Your task to perform on an android device: Go to battery settings Image 0: 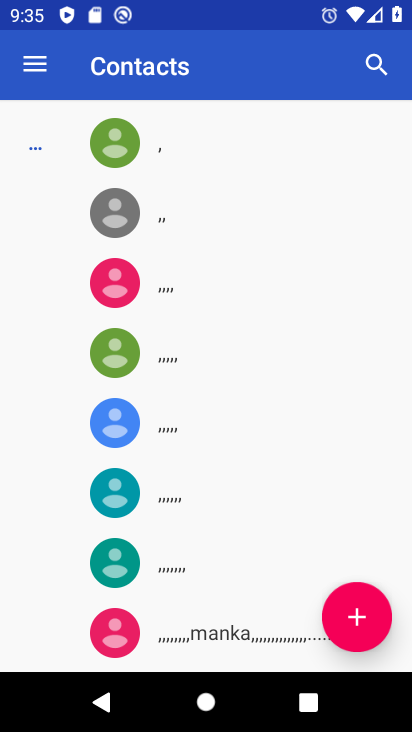
Step 0: press home button
Your task to perform on an android device: Go to battery settings Image 1: 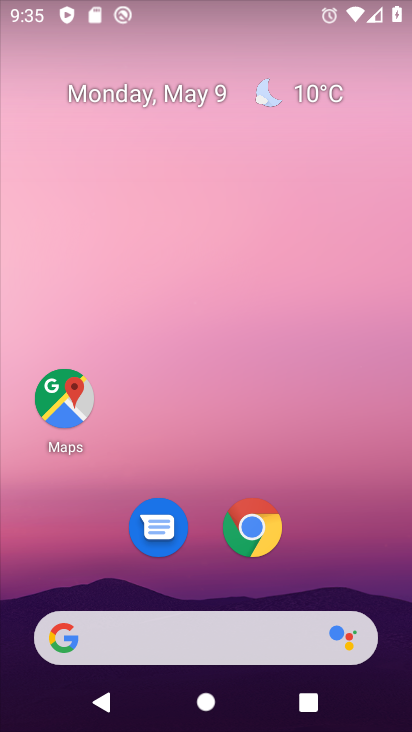
Step 1: drag from (394, 619) to (280, 67)
Your task to perform on an android device: Go to battery settings Image 2: 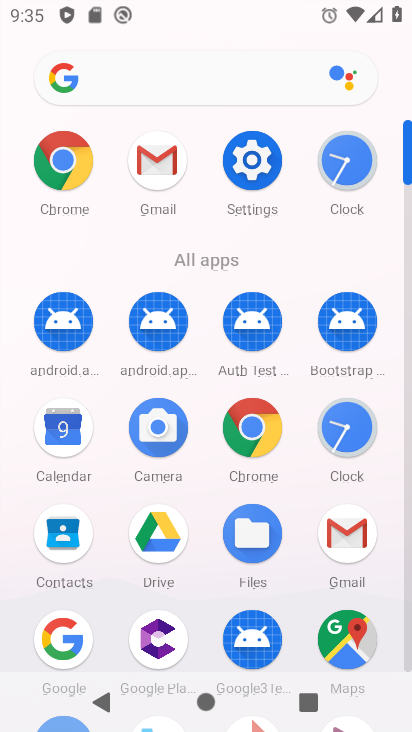
Step 2: click (408, 643)
Your task to perform on an android device: Go to battery settings Image 3: 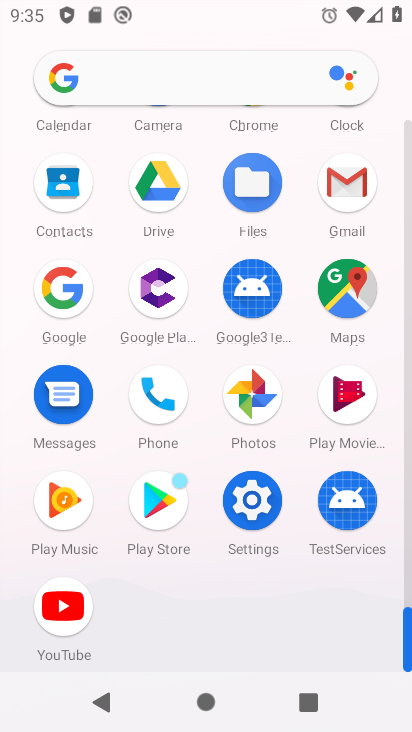
Step 3: click (250, 498)
Your task to perform on an android device: Go to battery settings Image 4: 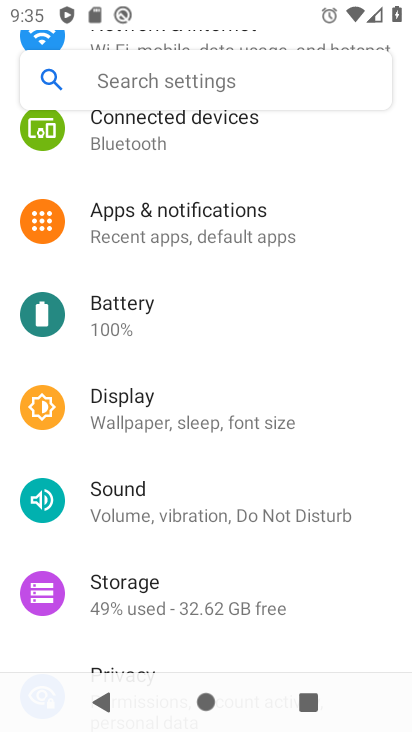
Step 4: click (109, 322)
Your task to perform on an android device: Go to battery settings Image 5: 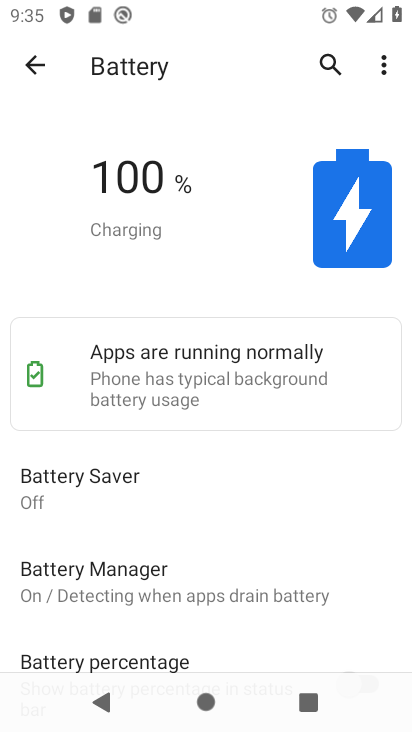
Step 5: task complete